Your task to perform on an android device: check out phone information Image 0: 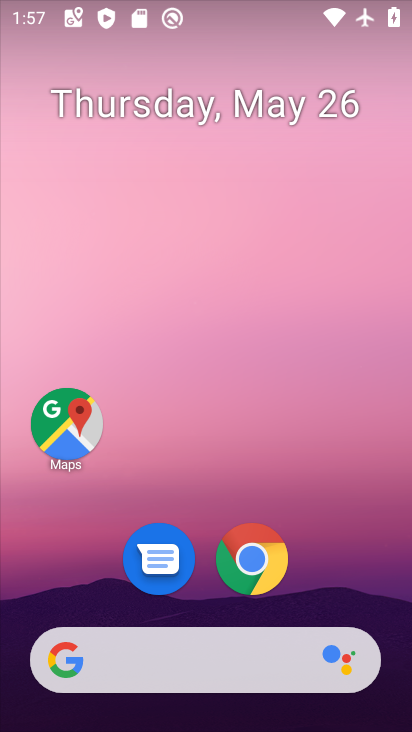
Step 0: press home button
Your task to perform on an android device: check out phone information Image 1: 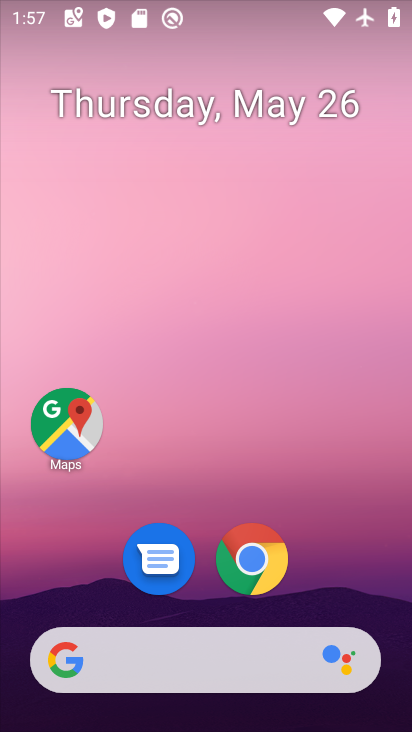
Step 1: drag from (158, 678) to (259, 183)
Your task to perform on an android device: check out phone information Image 2: 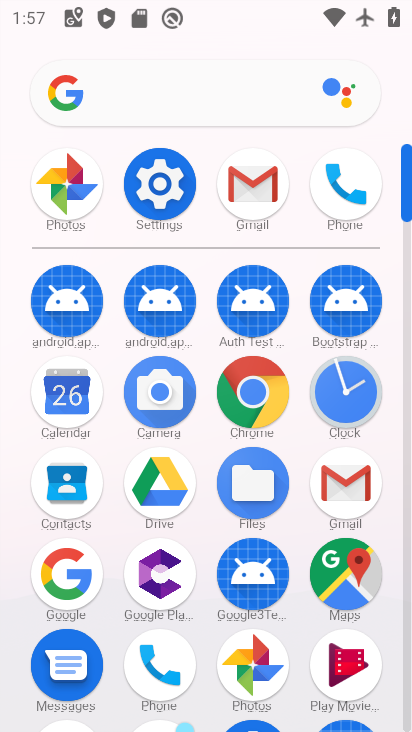
Step 2: click (160, 199)
Your task to perform on an android device: check out phone information Image 3: 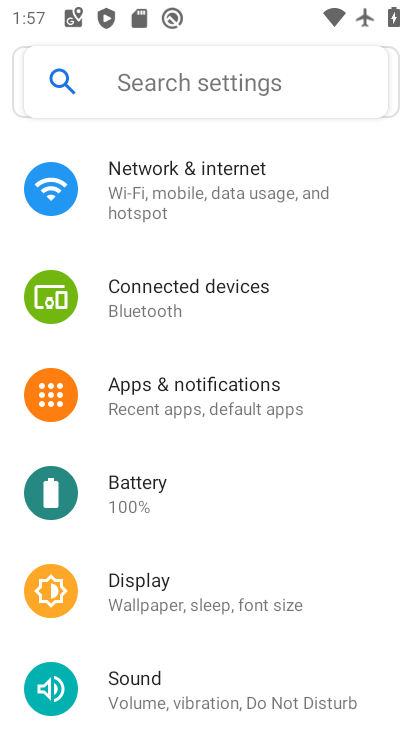
Step 3: drag from (275, 642) to (329, 254)
Your task to perform on an android device: check out phone information Image 4: 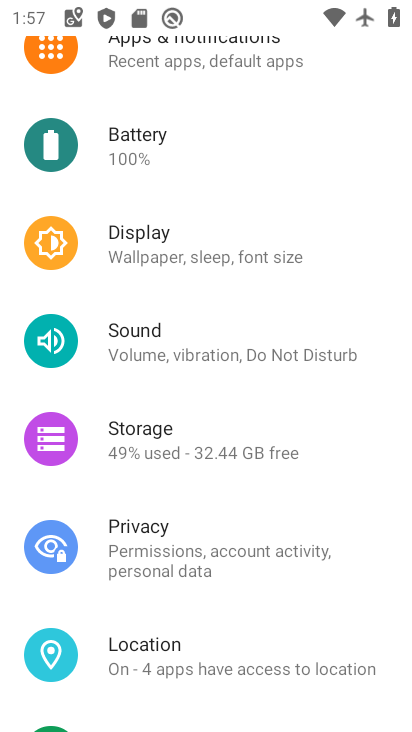
Step 4: drag from (261, 625) to (296, 157)
Your task to perform on an android device: check out phone information Image 5: 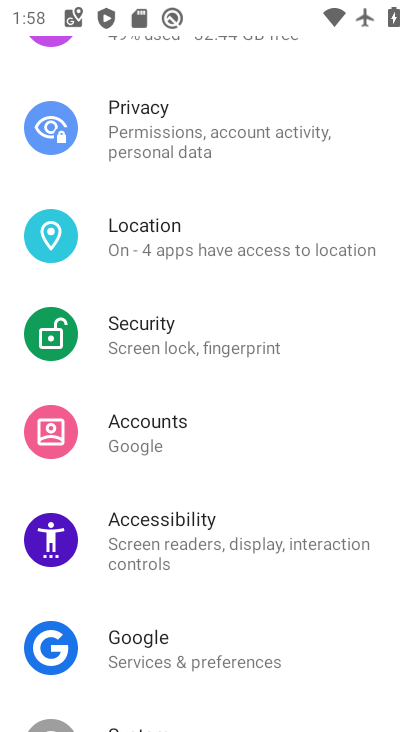
Step 5: drag from (271, 548) to (324, 271)
Your task to perform on an android device: check out phone information Image 6: 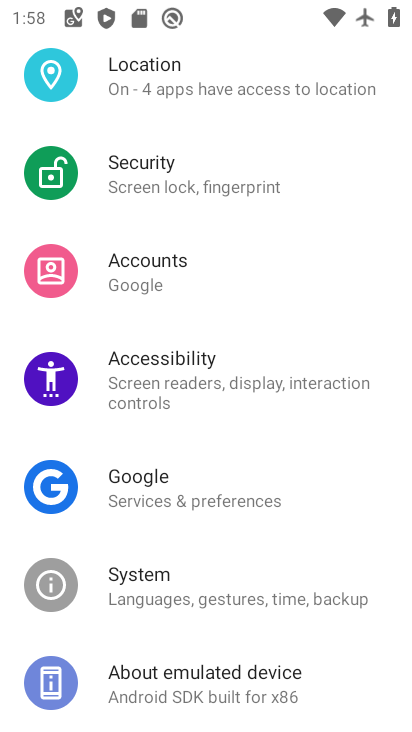
Step 6: click (219, 692)
Your task to perform on an android device: check out phone information Image 7: 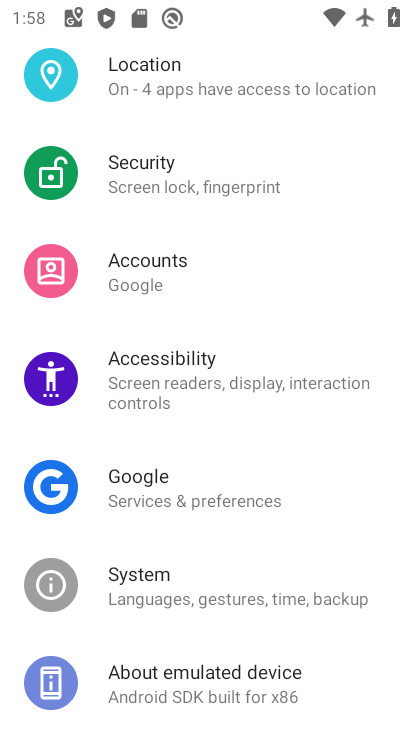
Step 7: drag from (213, 632) to (355, 307)
Your task to perform on an android device: check out phone information Image 8: 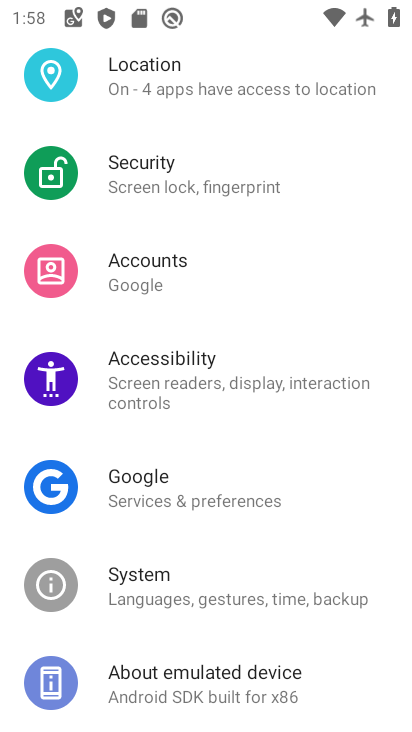
Step 8: click (235, 682)
Your task to perform on an android device: check out phone information Image 9: 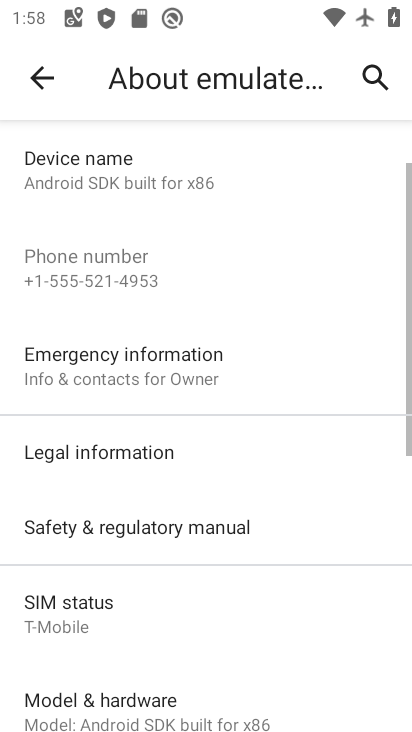
Step 9: task complete